Your task to perform on an android device: Clear the cart on target.com. Image 0: 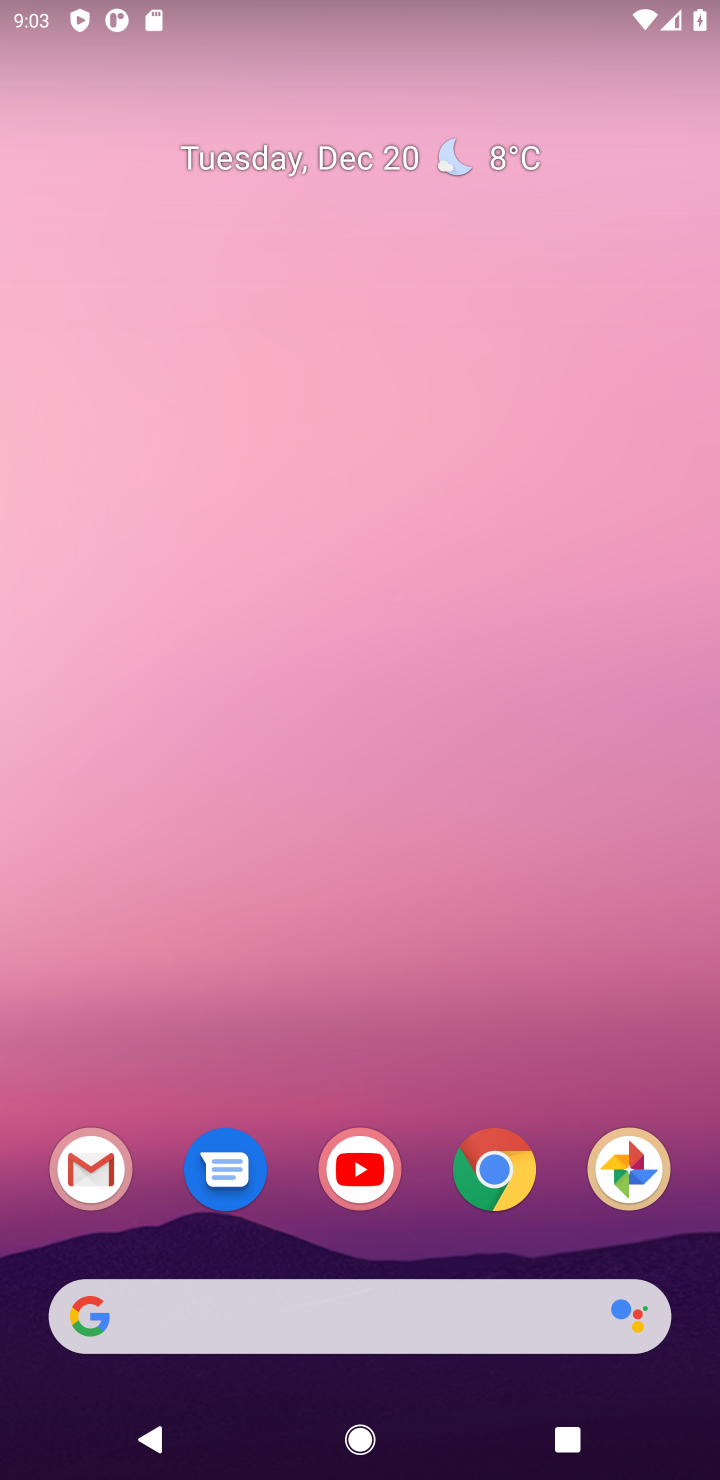
Step 0: click (495, 1190)
Your task to perform on an android device: Clear the cart on target.com. Image 1: 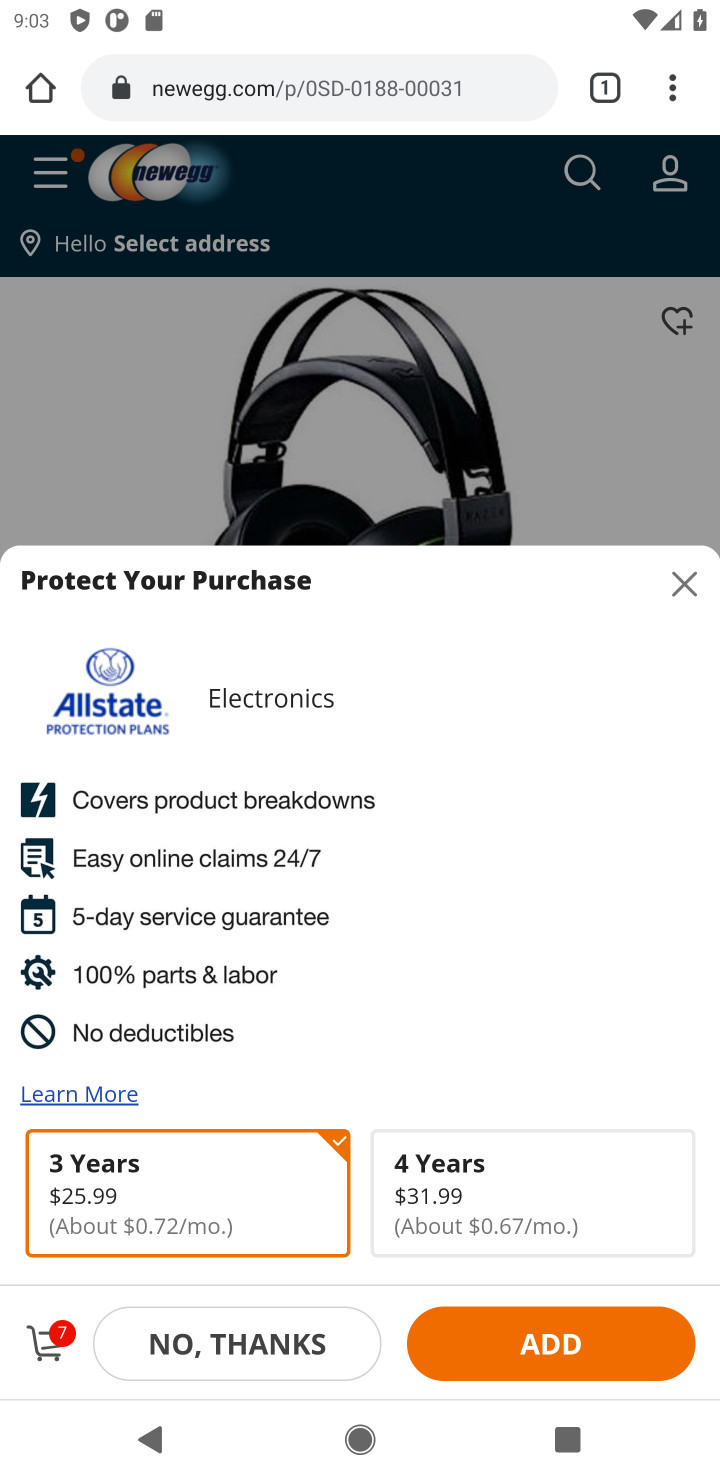
Step 1: click (352, 106)
Your task to perform on an android device: Clear the cart on target.com. Image 2: 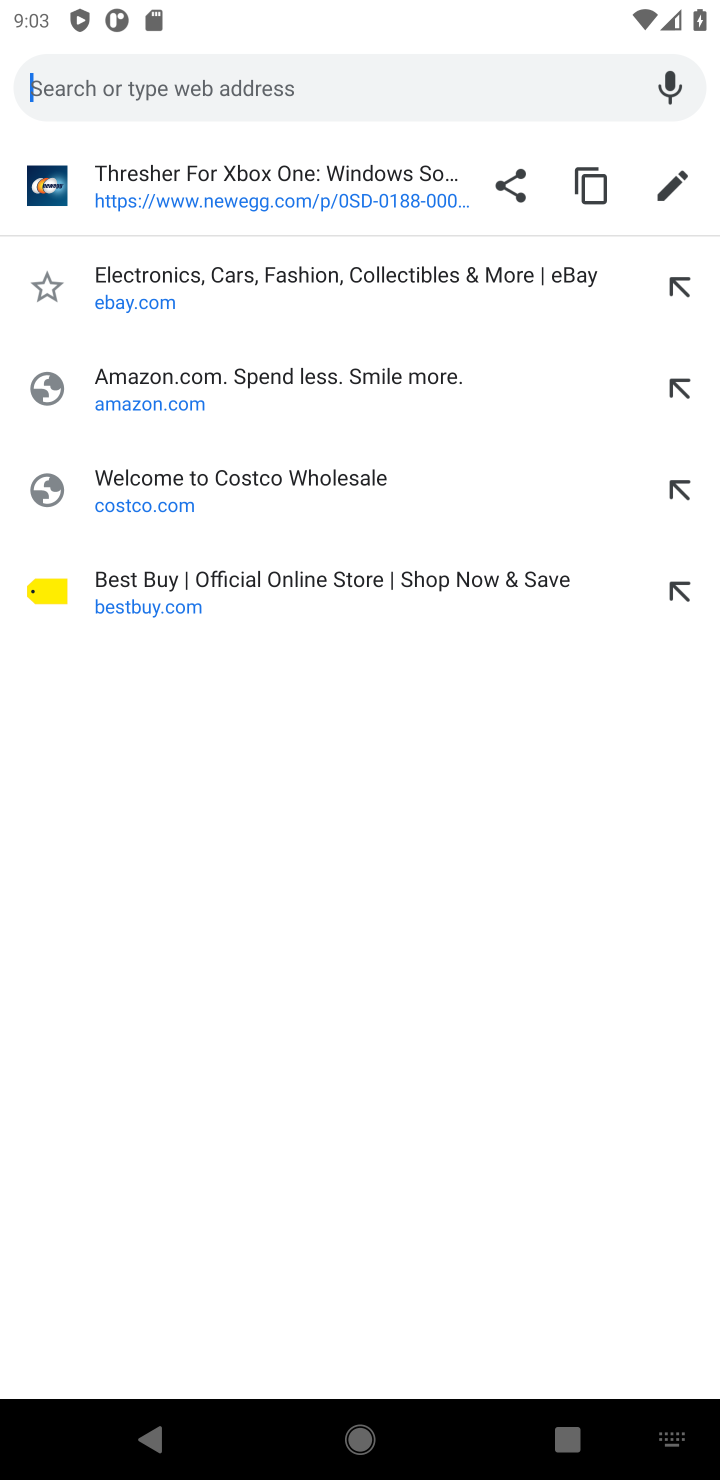
Step 2: type "target"
Your task to perform on an android device: Clear the cart on target.com. Image 3: 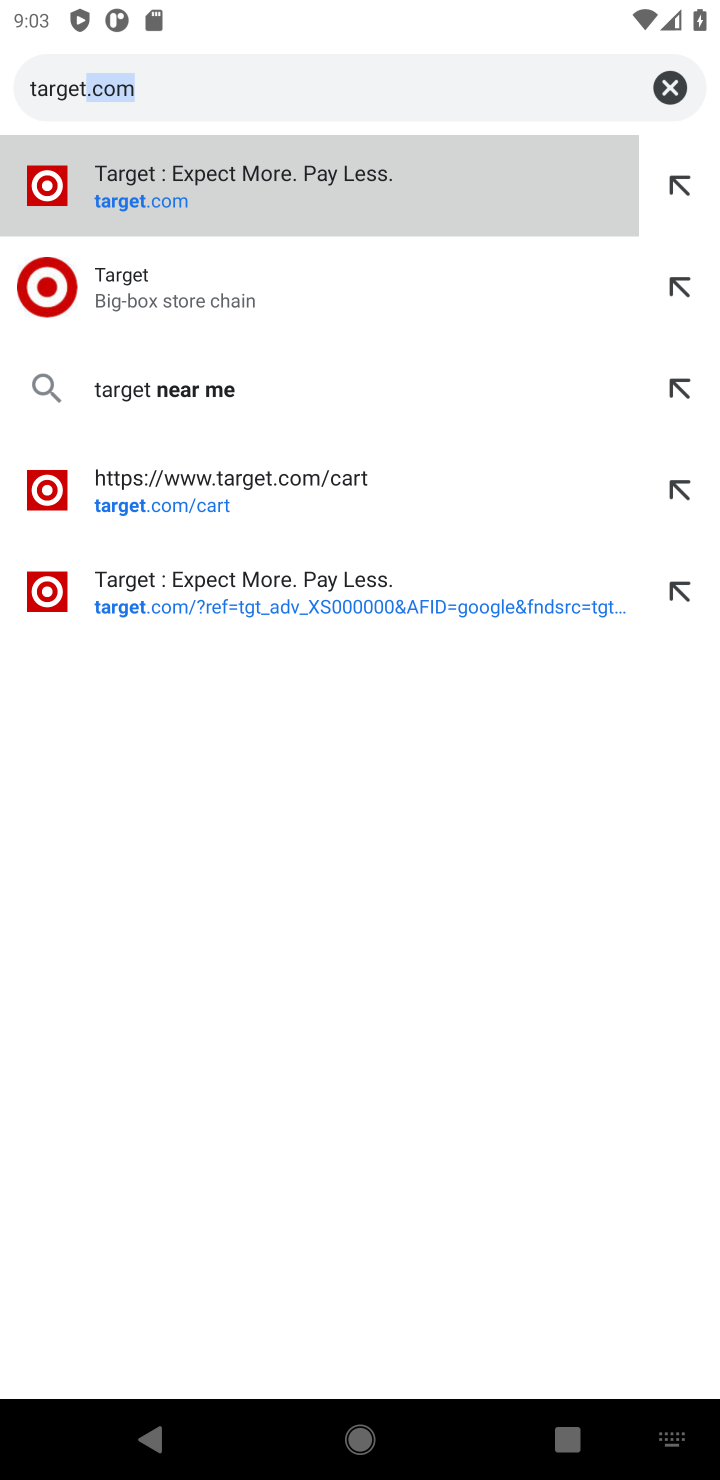
Step 3: click (165, 207)
Your task to perform on an android device: Clear the cart on target.com. Image 4: 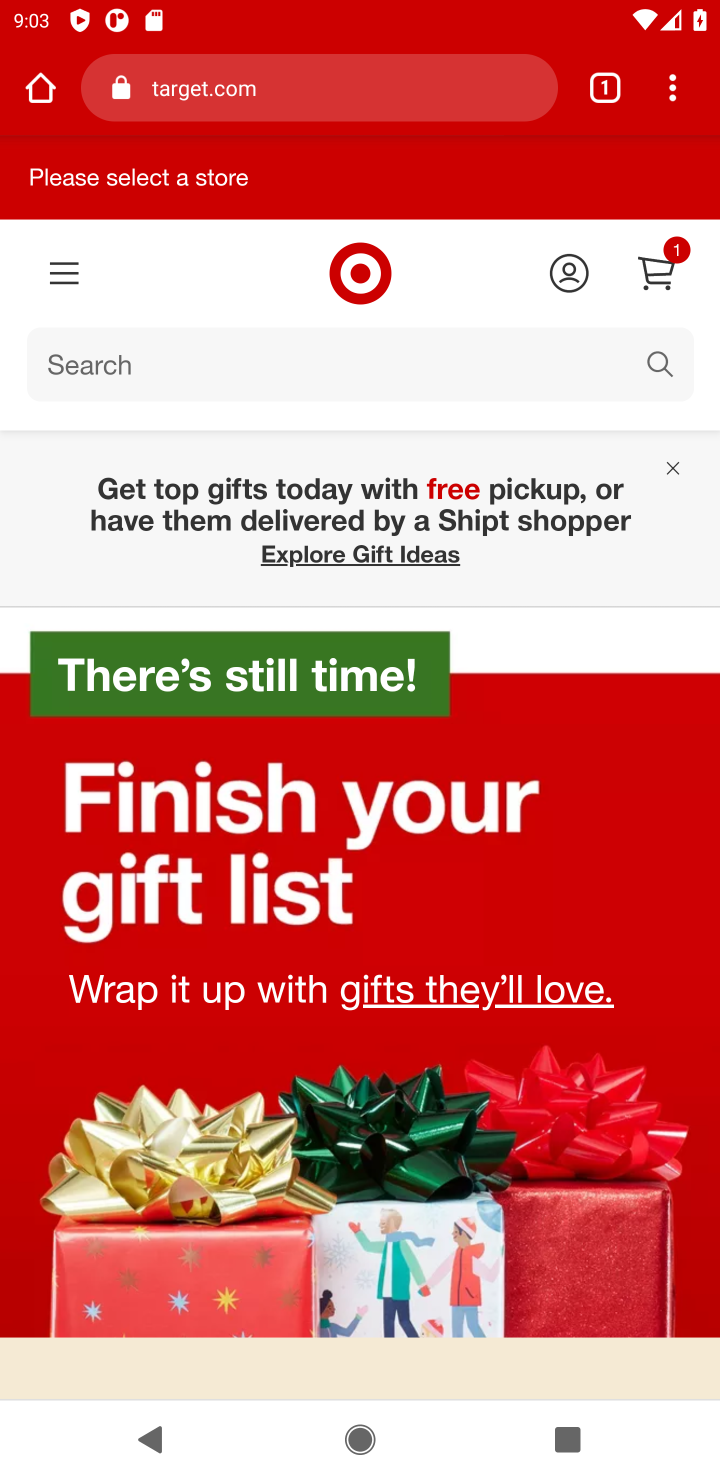
Step 4: click (240, 339)
Your task to perform on an android device: Clear the cart on target.com. Image 5: 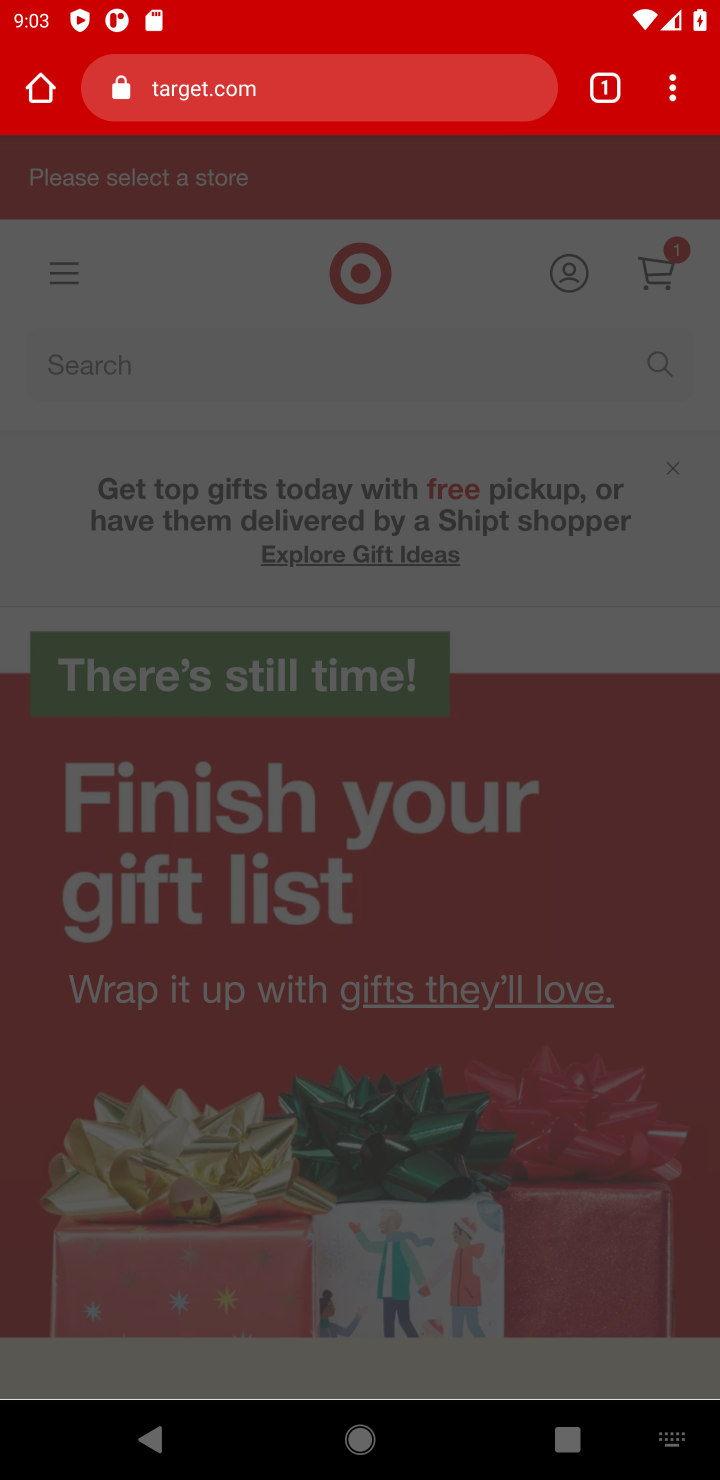
Step 5: click (660, 265)
Your task to perform on an android device: Clear the cart on target.com. Image 6: 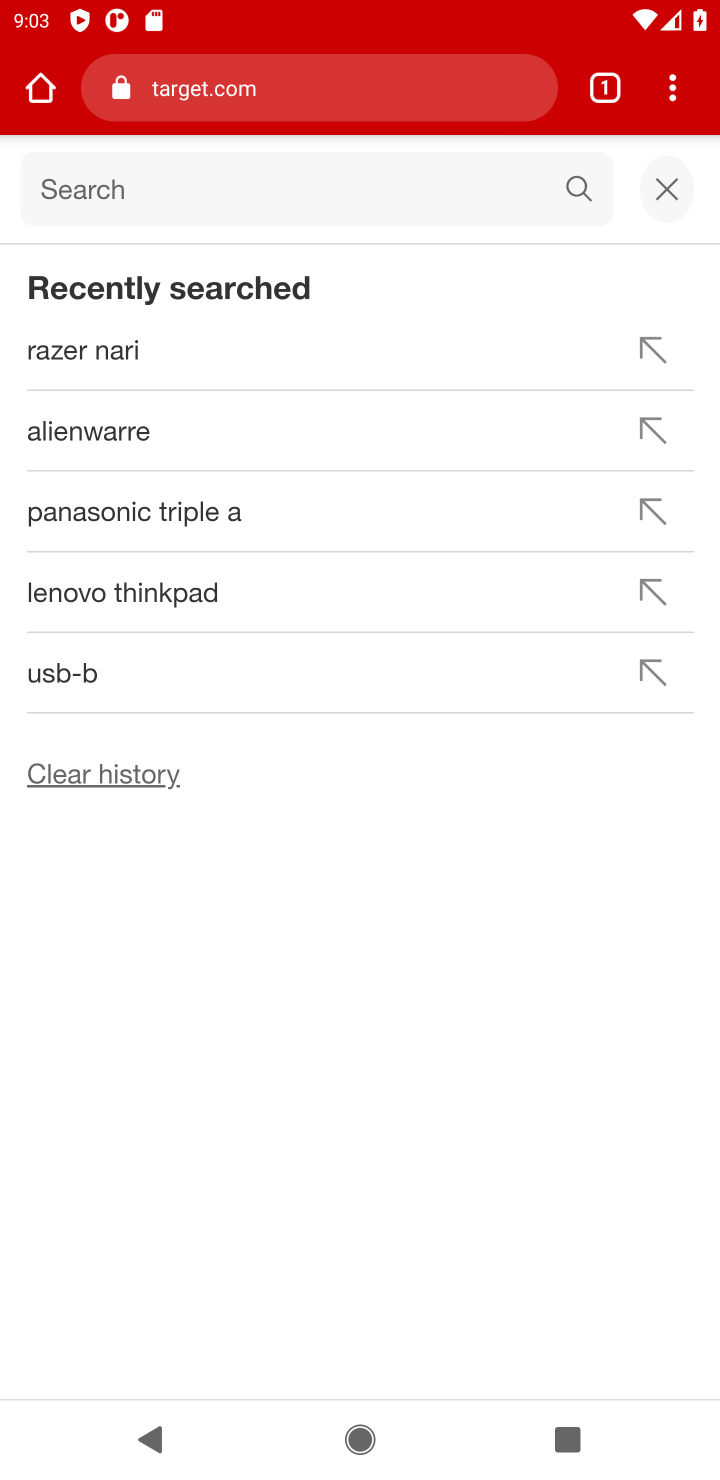
Step 6: click (660, 183)
Your task to perform on an android device: Clear the cart on target.com. Image 7: 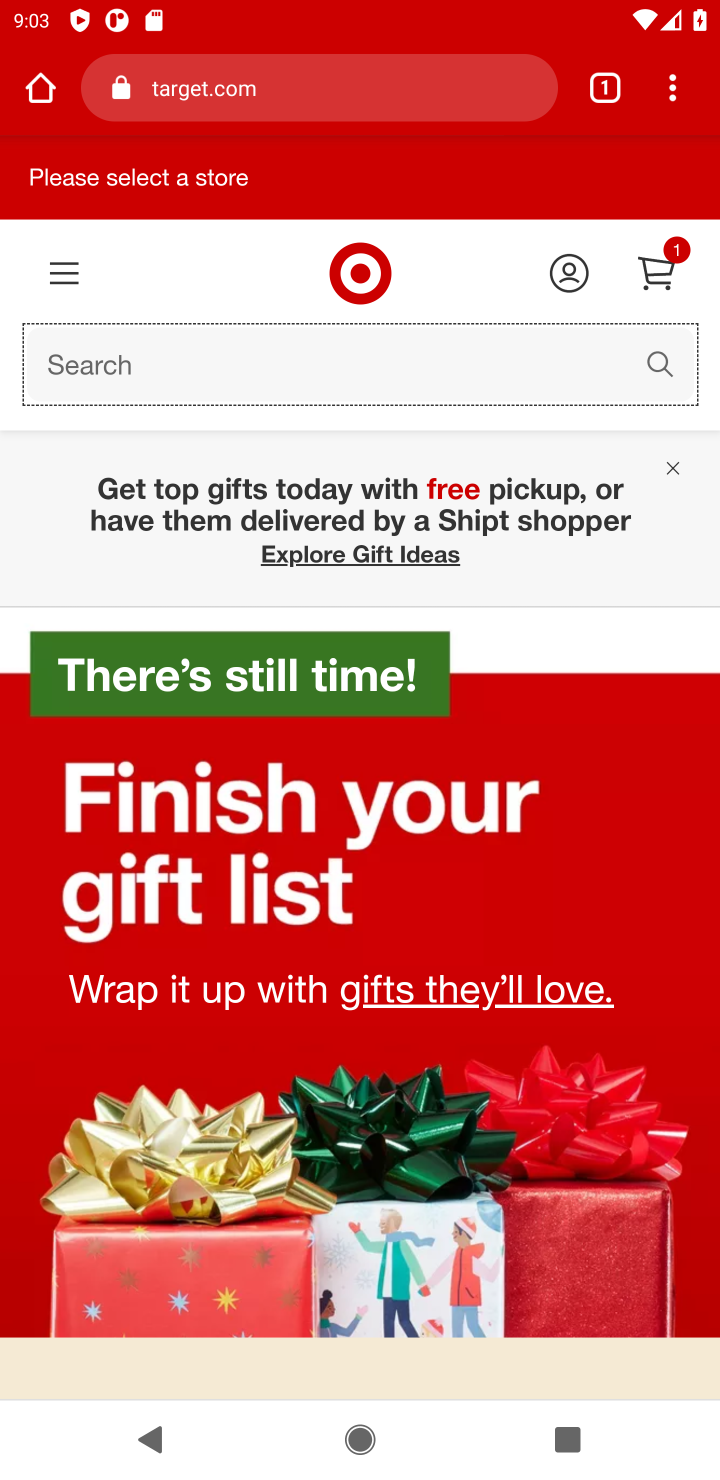
Step 7: click (648, 269)
Your task to perform on an android device: Clear the cart on target.com. Image 8: 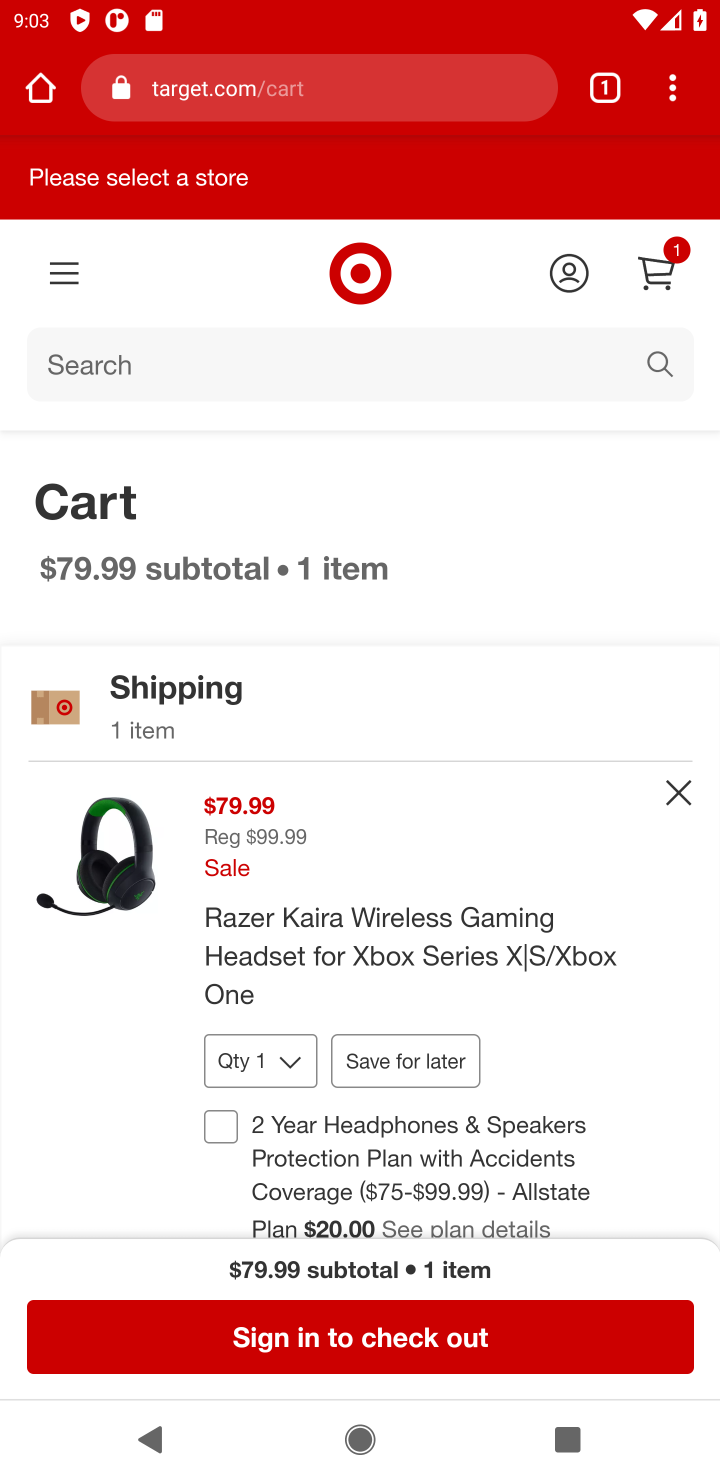
Step 8: click (683, 798)
Your task to perform on an android device: Clear the cart on target.com. Image 9: 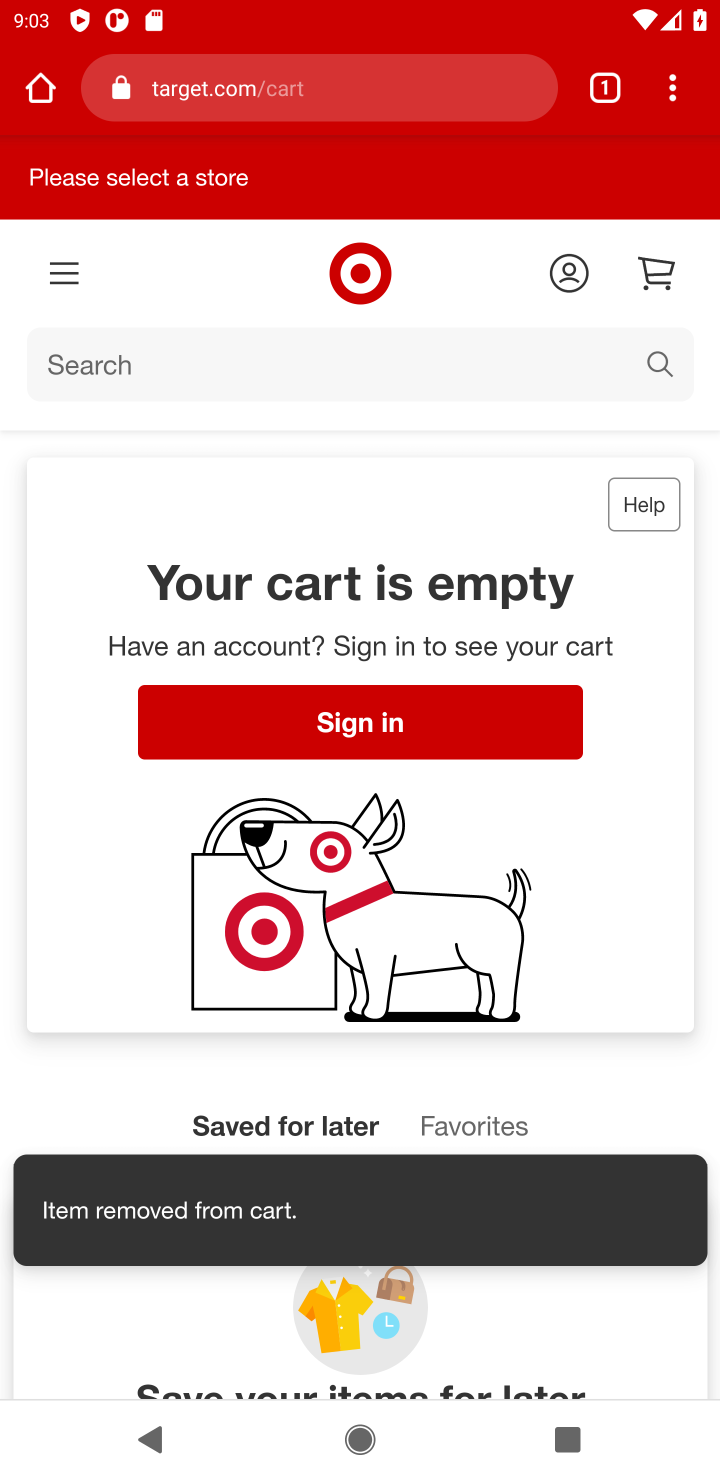
Step 9: task complete